Your task to perform on an android device: turn off priority inbox in the gmail app Image 0: 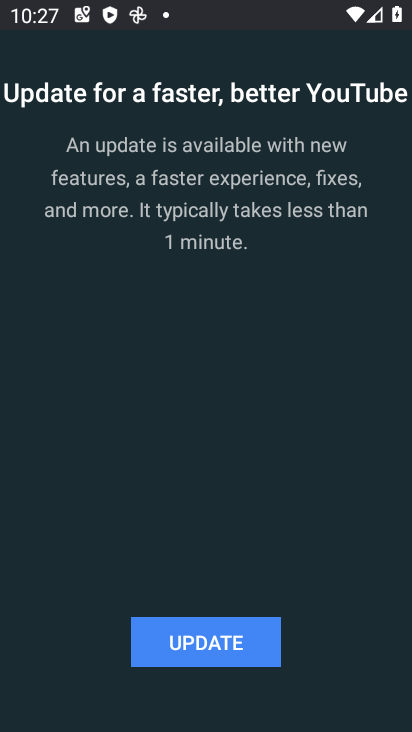
Step 0: press back button
Your task to perform on an android device: turn off priority inbox in the gmail app Image 1: 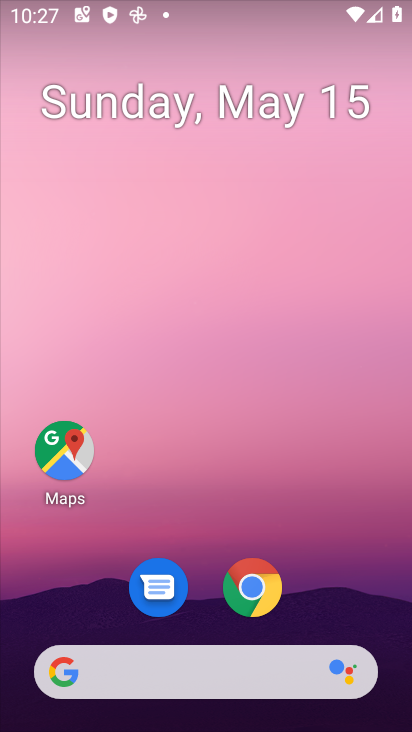
Step 1: drag from (392, 623) to (321, 84)
Your task to perform on an android device: turn off priority inbox in the gmail app Image 2: 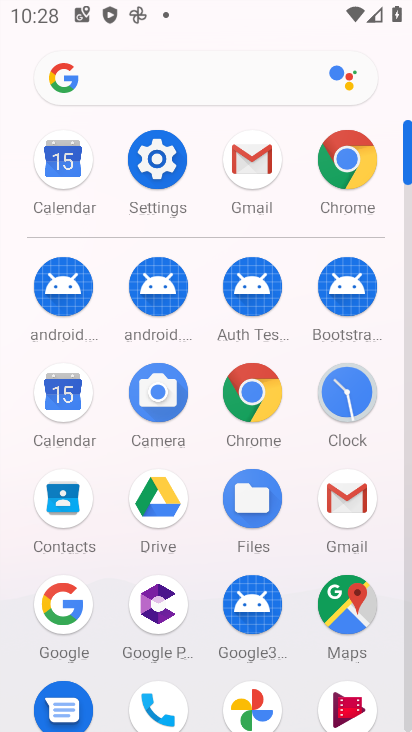
Step 2: click (366, 508)
Your task to perform on an android device: turn off priority inbox in the gmail app Image 3: 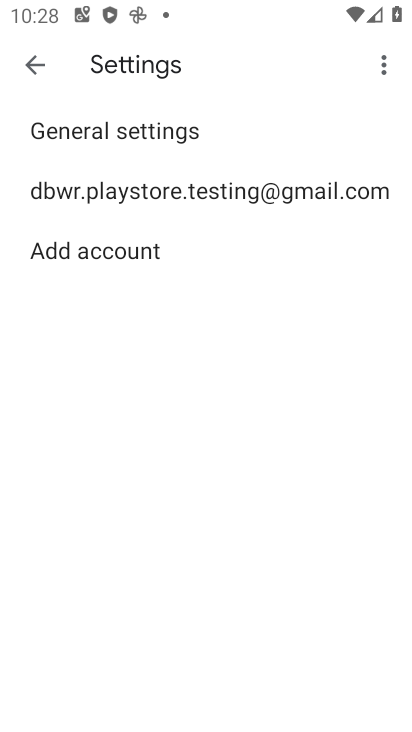
Step 3: click (192, 193)
Your task to perform on an android device: turn off priority inbox in the gmail app Image 4: 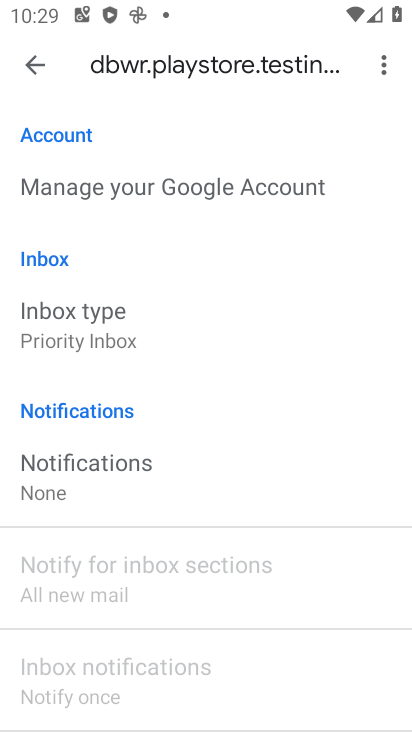
Step 4: click (147, 336)
Your task to perform on an android device: turn off priority inbox in the gmail app Image 5: 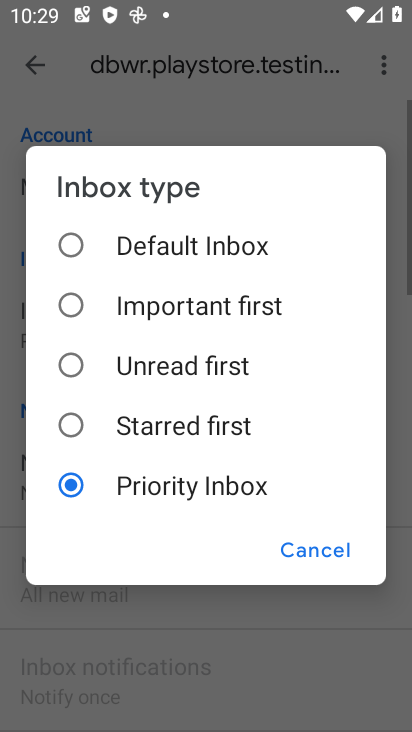
Step 5: click (130, 427)
Your task to perform on an android device: turn off priority inbox in the gmail app Image 6: 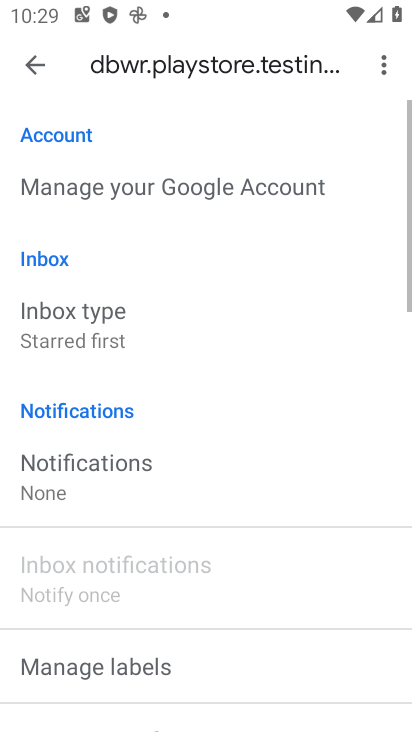
Step 6: task complete